Your task to perform on an android device: Open the map Image 0: 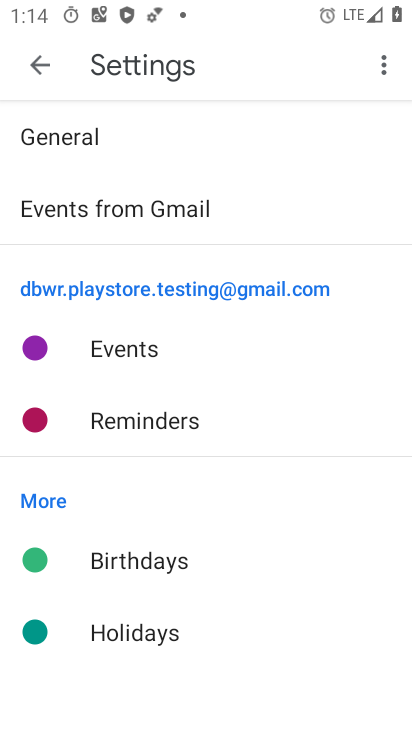
Step 0: press home button
Your task to perform on an android device: Open the map Image 1: 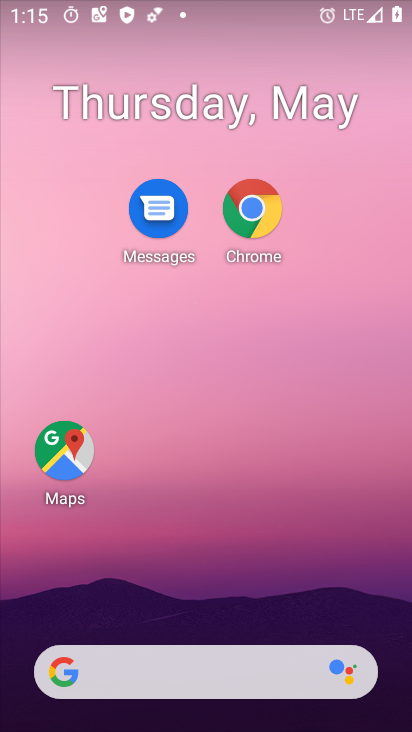
Step 1: click (56, 460)
Your task to perform on an android device: Open the map Image 2: 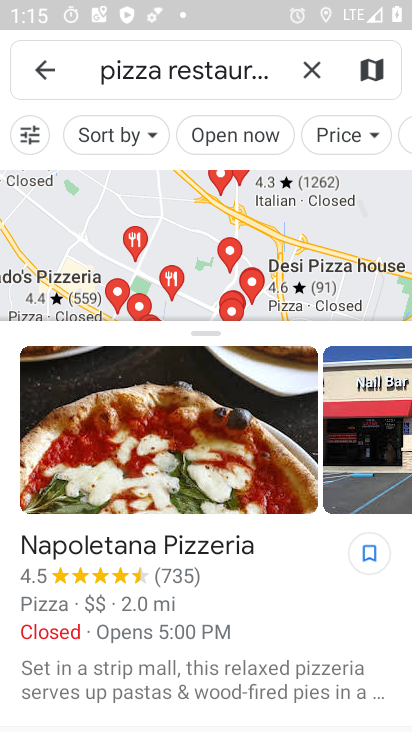
Step 2: task complete